Your task to perform on an android device: change the clock style Image 0: 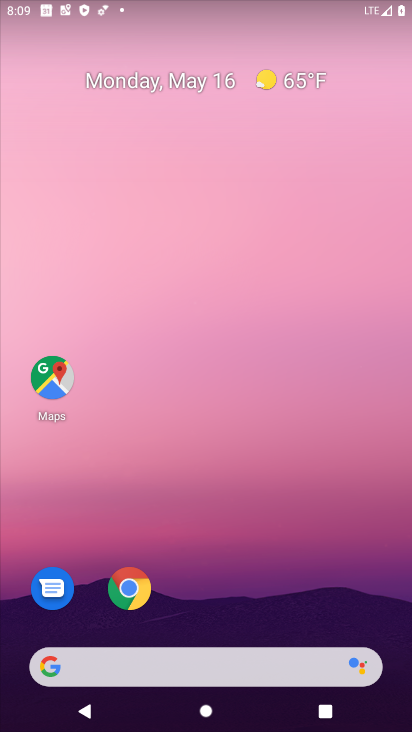
Step 0: drag from (262, 524) to (198, 19)
Your task to perform on an android device: change the clock style Image 1: 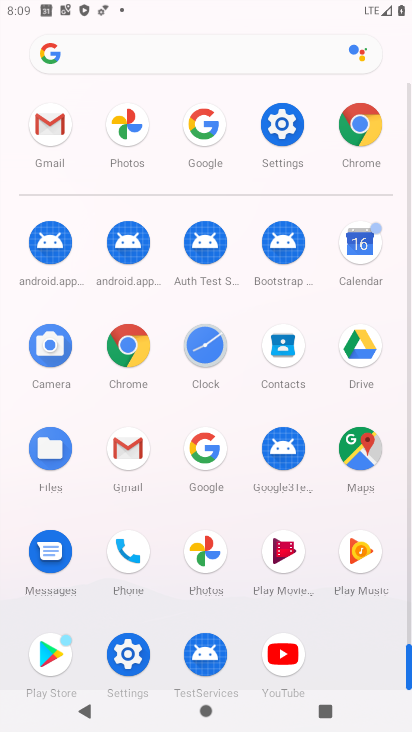
Step 1: drag from (16, 496) to (14, 236)
Your task to perform on an android device: change the clock style Image 2: 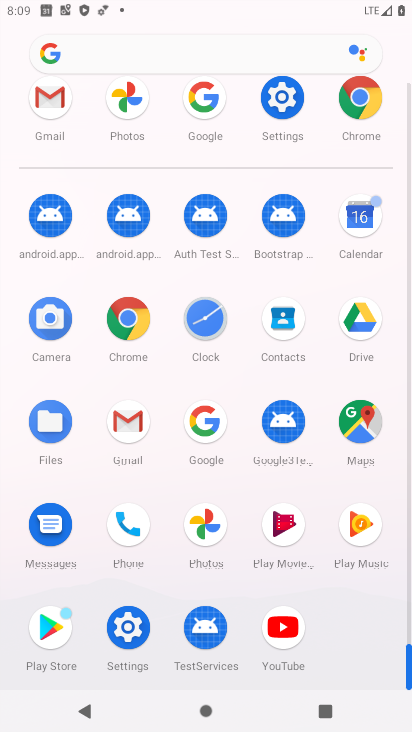
Step 2: click (202, 318)
Your task to perform on an android device: change the clock style Image 3: 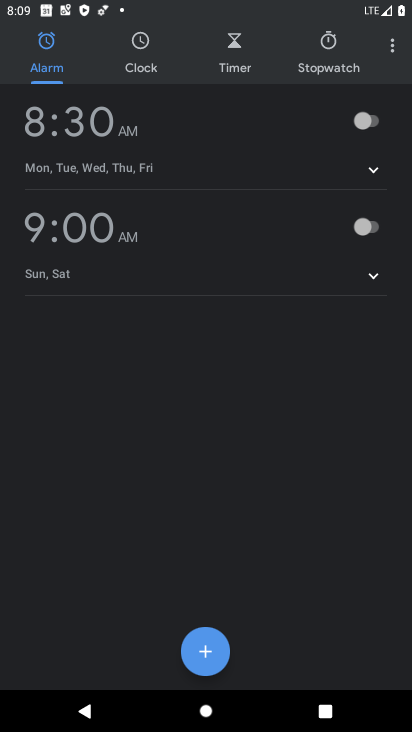
Step 3: drag from (394, 46) to (349, 92)
Your task to perform on an android device: change the clock style Image 4: 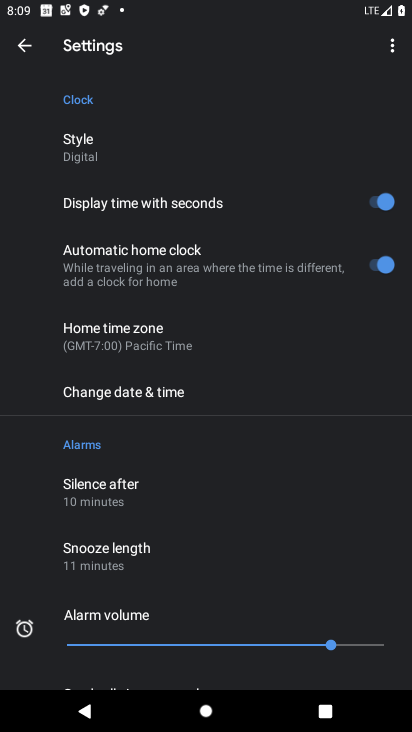
Step 4: click (164, 162)
Your task to perform on an android device: change the clock style Image 5: 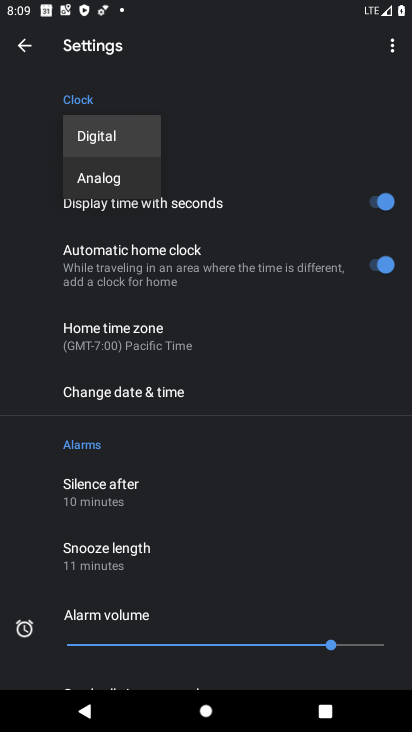
Step 5: click (112, 185)
Your task to perform on an android device: change the clock style Image 6: 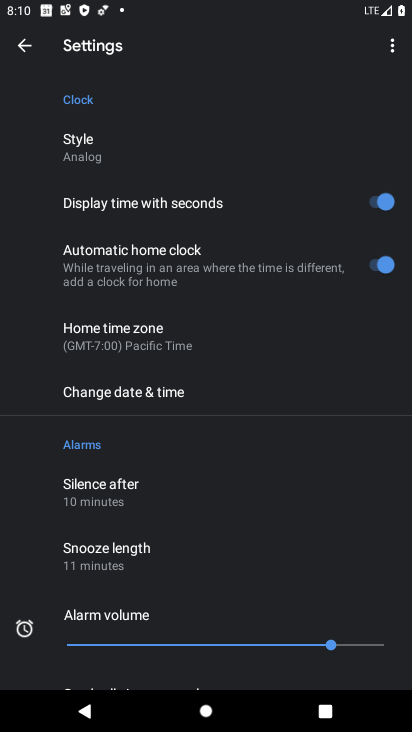
Step 6: task complete